Your task to perform on an android device: Is it going to rain today? Image 0: 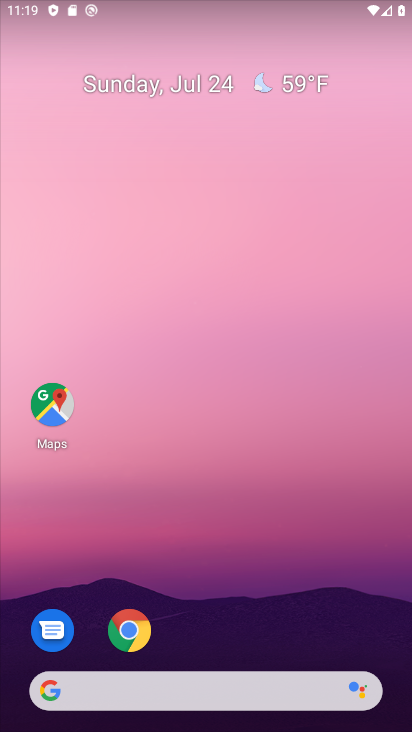
Step 0: drag from (227, 637) to (211, 86)
Your task to perform on an android device: Is it going to rain today? Image 1: 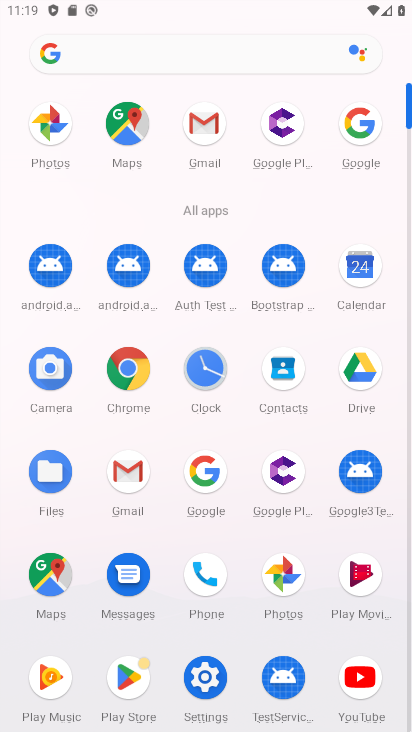
Step 1: click (372, 122)
Your task to perform on an android device: Is it going to rain today? Image 2: 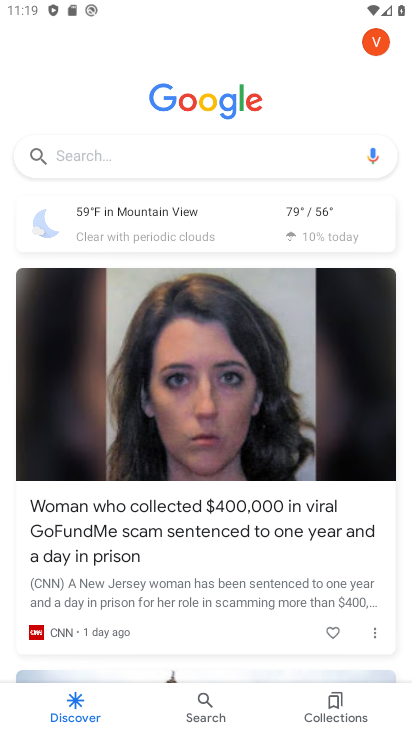
Step 2: click (99, 156)
Your task to perform on an android device: Is it going to rain today? Image 3: 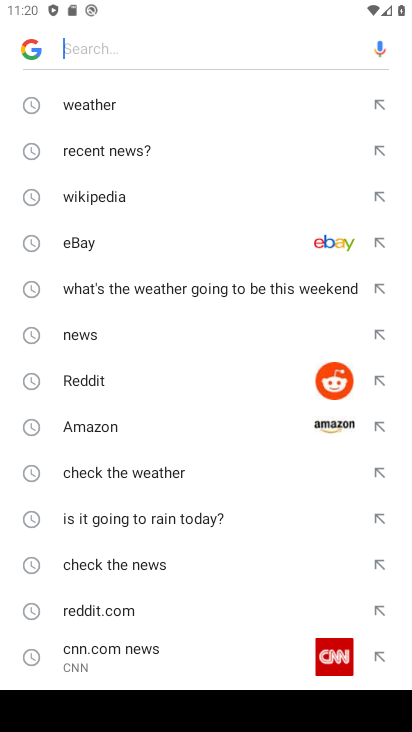
Step 3: click (121, 519)
Your task to perform on an android device: Is it going to rain today? Image 4: 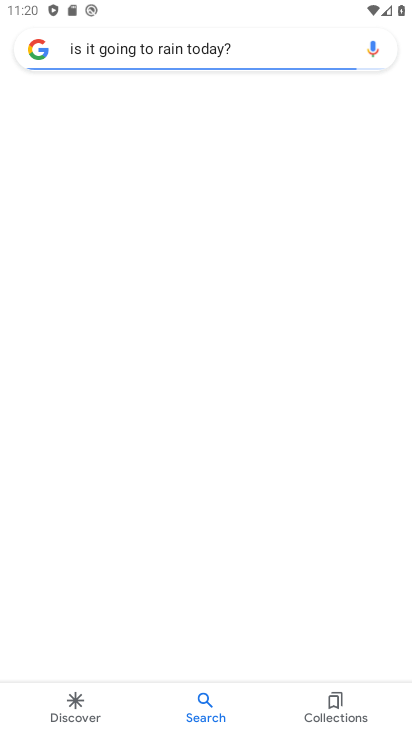
Step 4: task complete